Your task to perform on an android device: move an email to a new category in the gmail app Image 0: 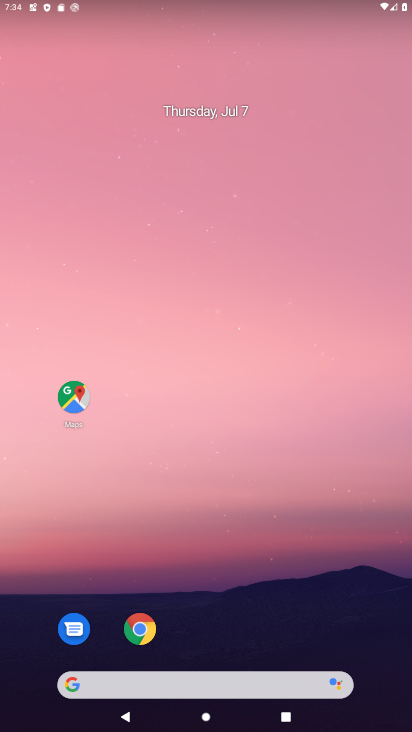
Step 0: drag from (363, 612) to (384, 135)
Your task to perform on an android device: move an email to a new category in the gmail app Image 1: 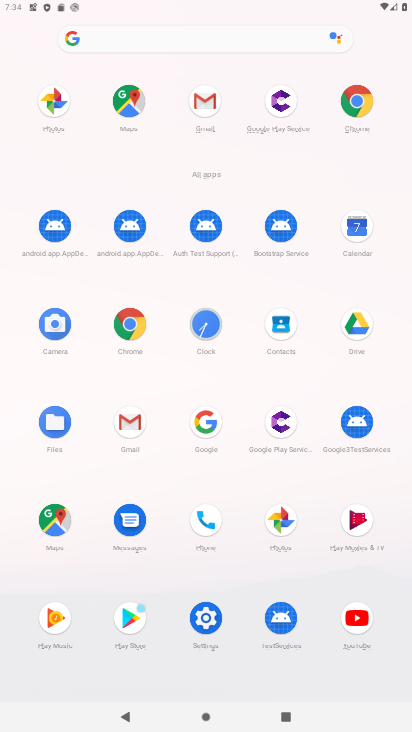
Step 1: click (131, 418)
Your task to perform on an android device: move an email to a new category in the gmail app Image 2: 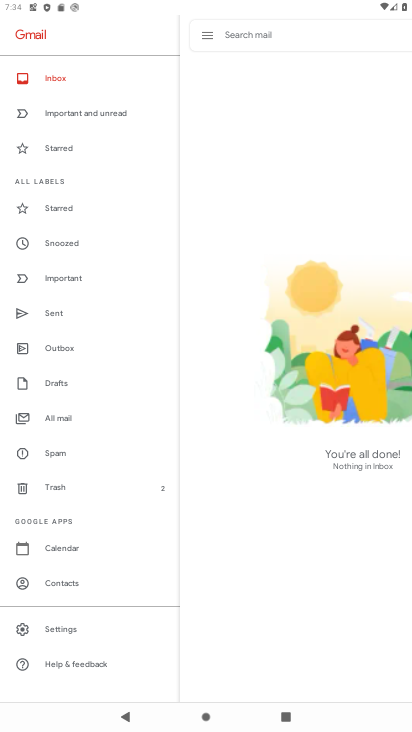
Step 2: click (69, 417)
Your task to perform on an android device: move an email to a new category in the gmail app Image 3: 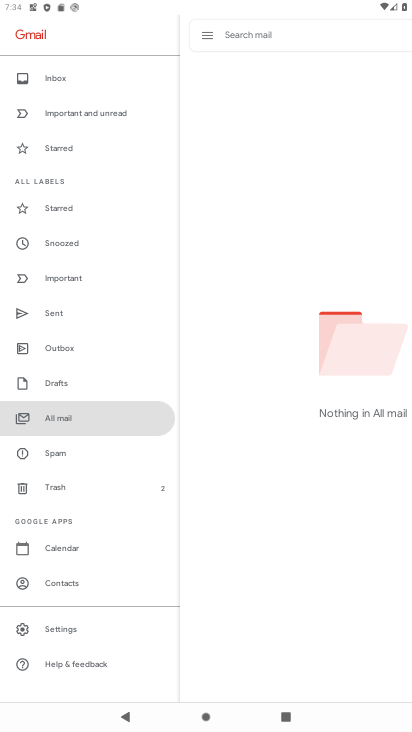
Step 3: task complete